Your task to perform on an android device: delete a single message in the gmail app Image 0: 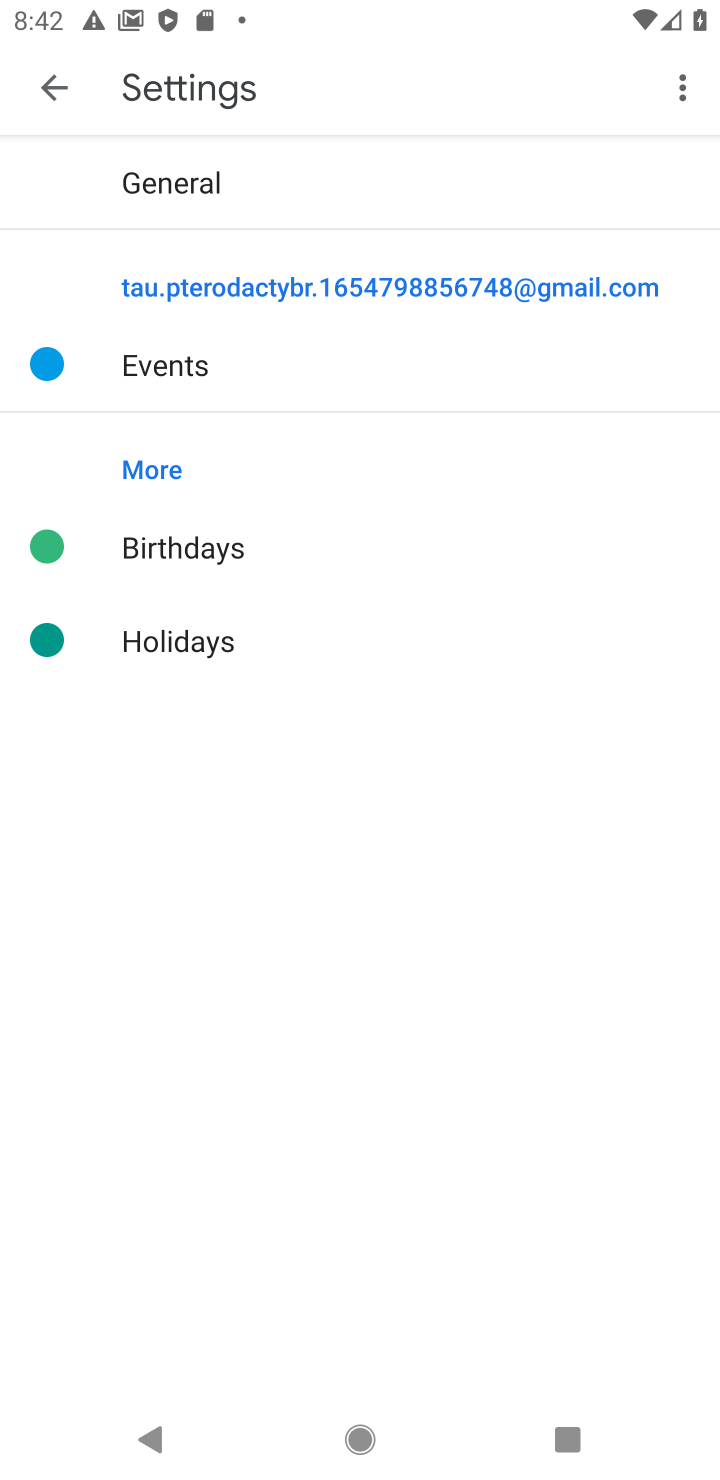
Step 0: press home button
Your task to perform on an android device: delete a single message in the gmail app Image 1: 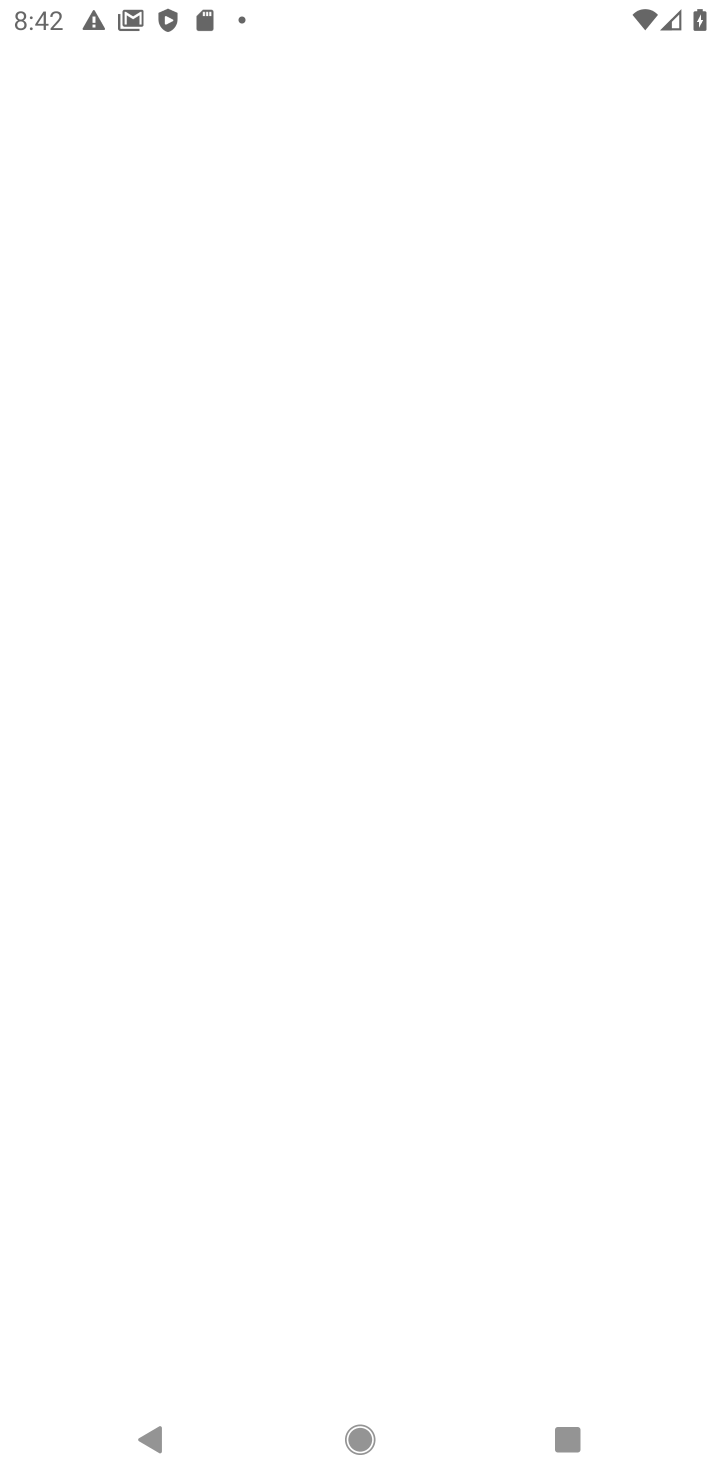
Step 1: press home button
Your task to perform on an android device: delete a single message in the gmail app Image 2: 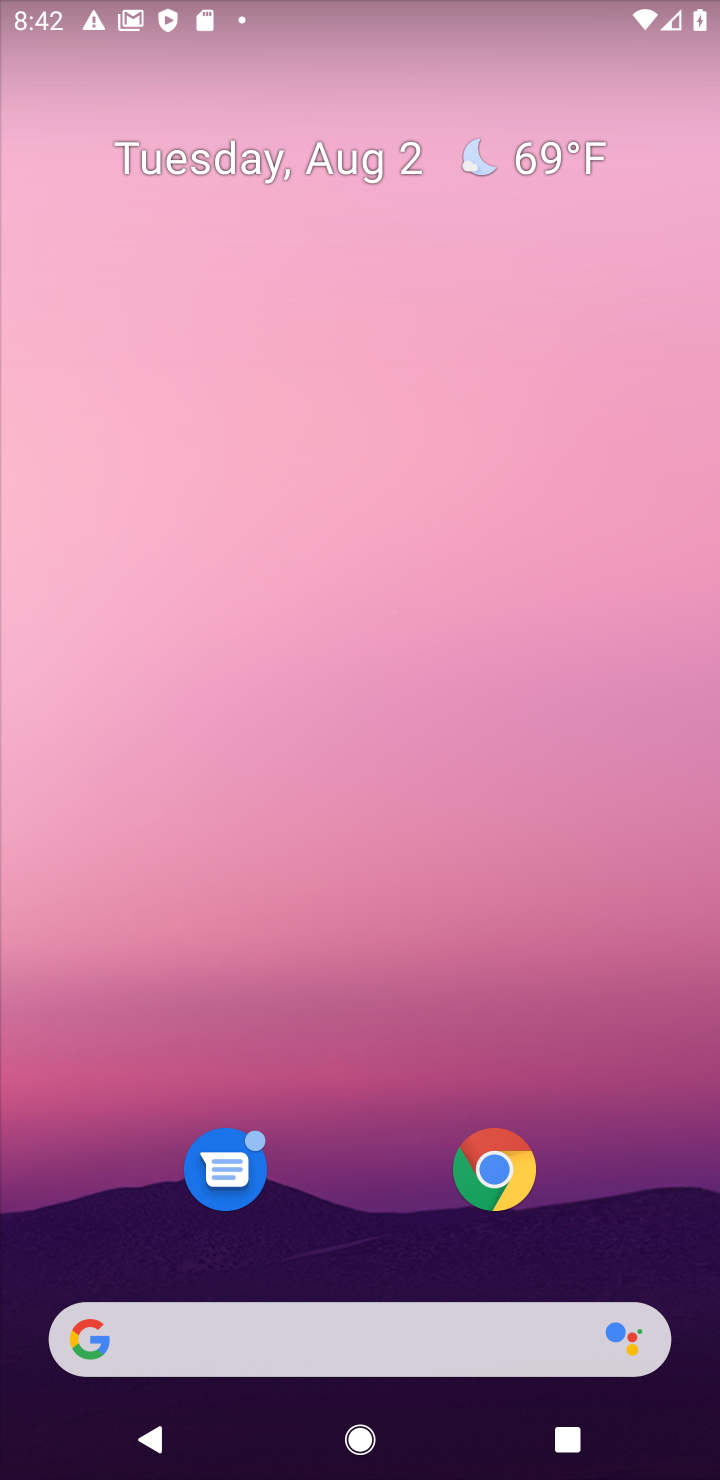
Step 2: drag from (426, 1471) to (309, 145)
Your task to perform on an android device: delete a single message in the gmail app Image 3: 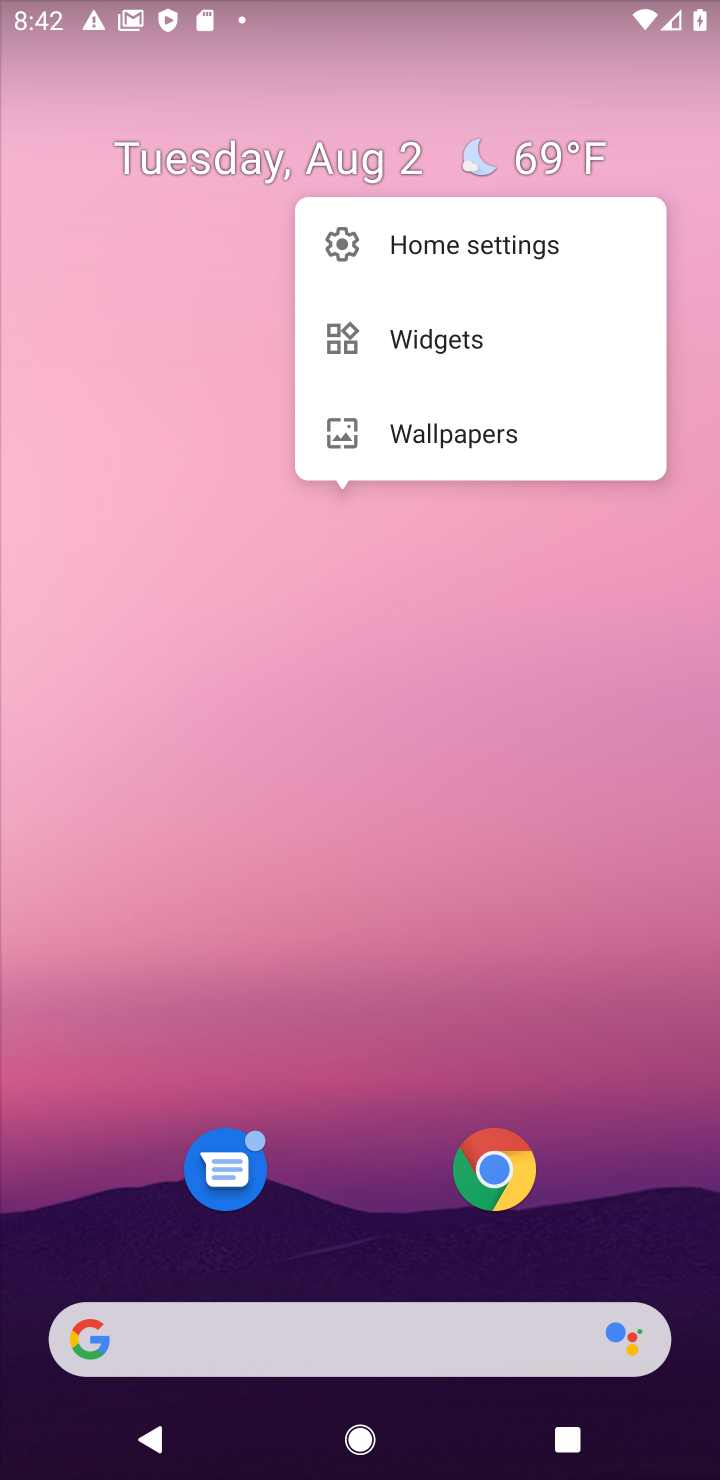
Step 3: click (428, 594)
Your task to perform on an android device: delete a single message in the gmail app Image 4: 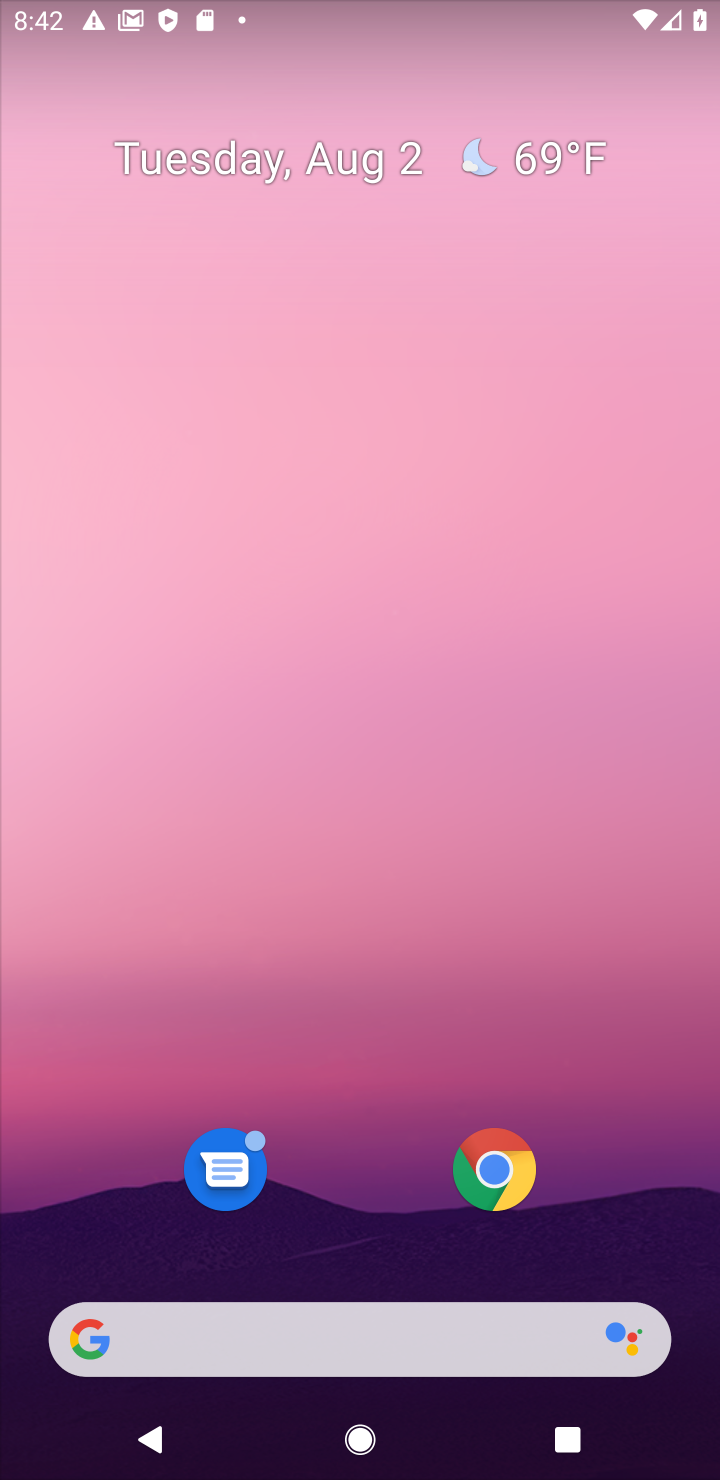
Step 4: drag from (454, 1461) to (478, 29)
Your task to perform on an android device: delete a single message in the gmail app Image 5: 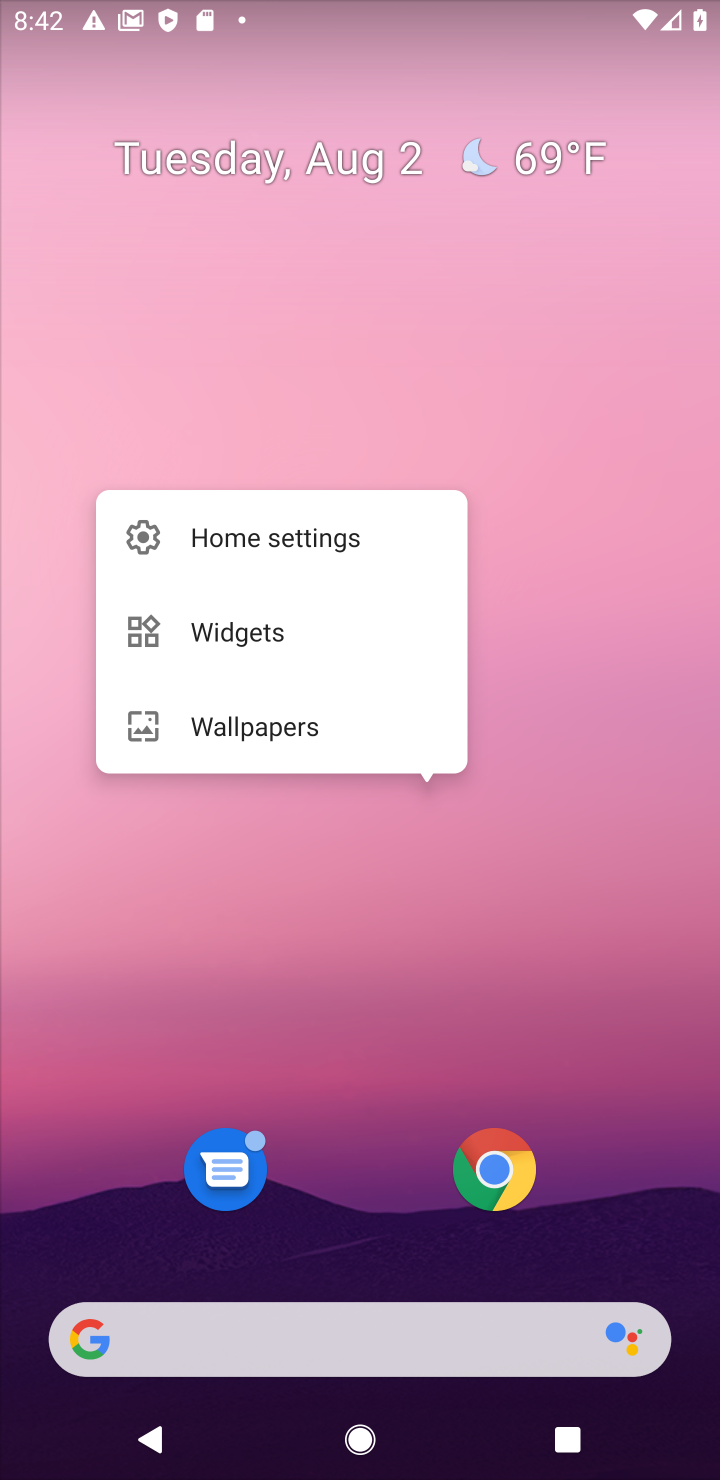
Step 5: click (534, 1113)
Your task to perform on an android device: delete a single message in the gmail app Image 6: 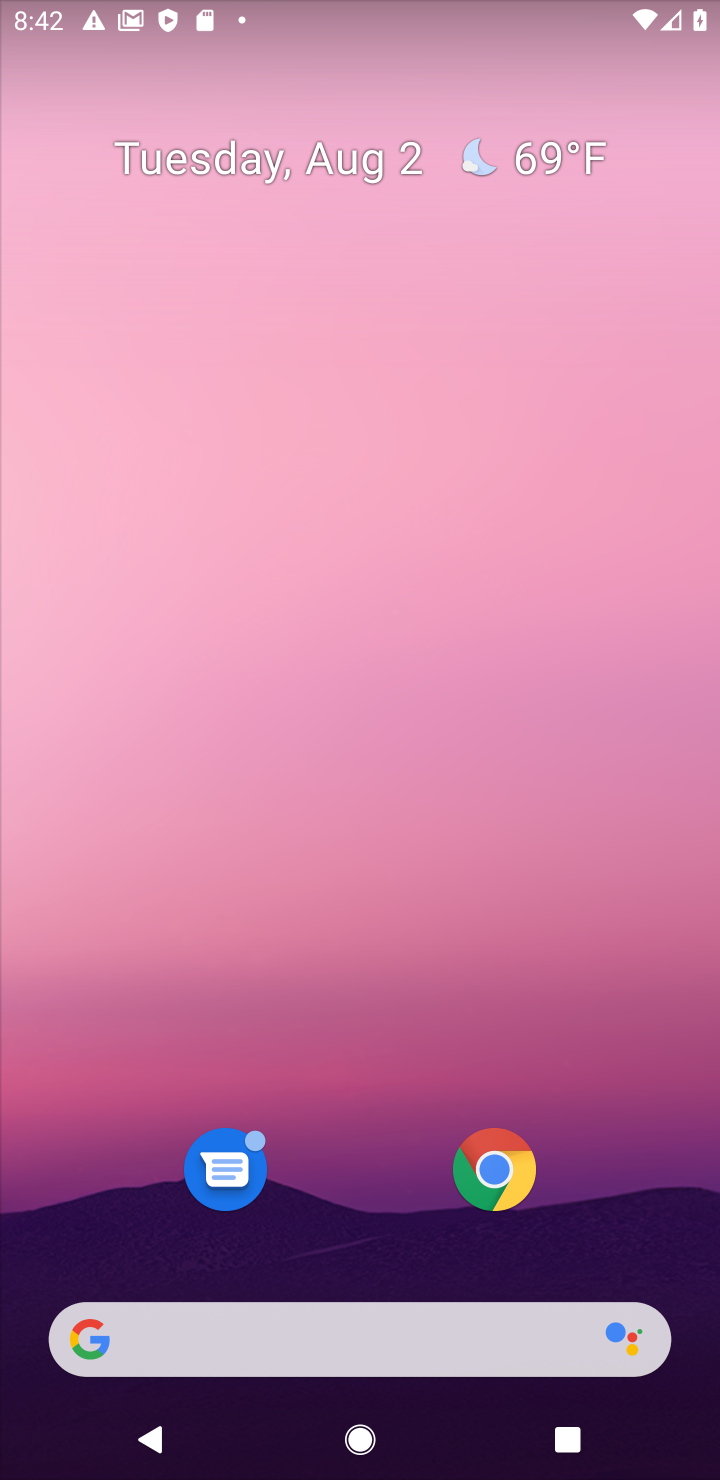
Step 6: drag from (435, 1450) to (378, 57)
Your task to perform on an android device: delete a single message in the gmail app Image 7: 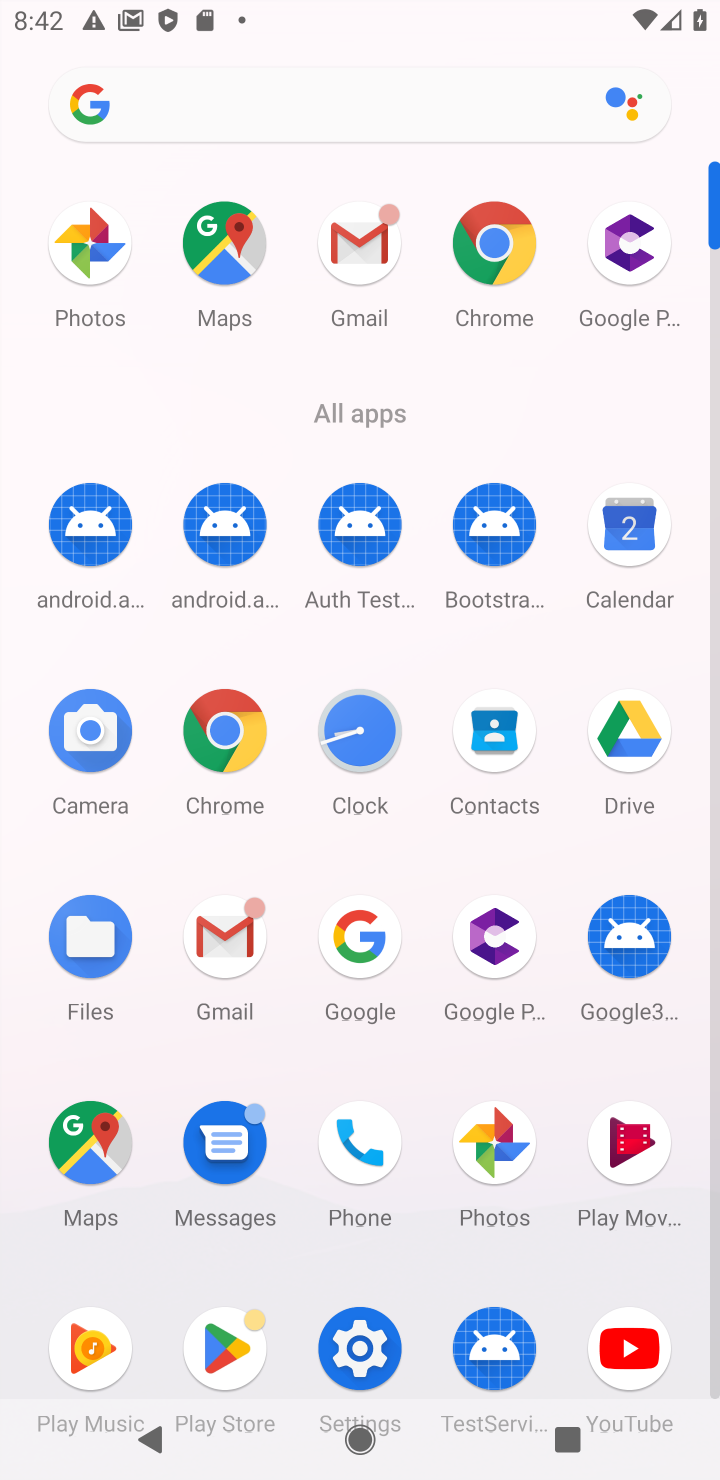
Step 7: click (224, 933)
Your task to perform on an android device: delete a single message in the gmail app Image 8: 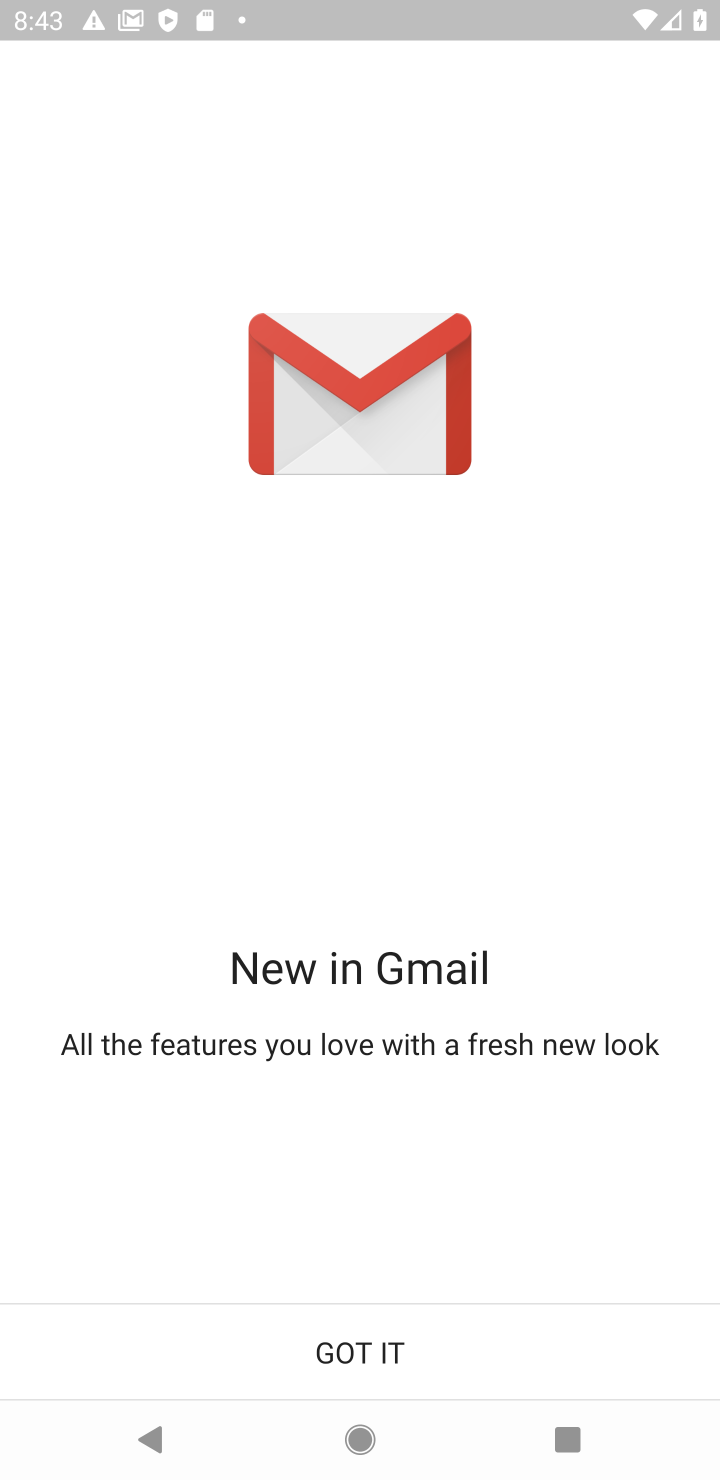
Step 8: click (356, 1346)
Your task to perform on an android device: delete a single message in the gmail app Image 9: 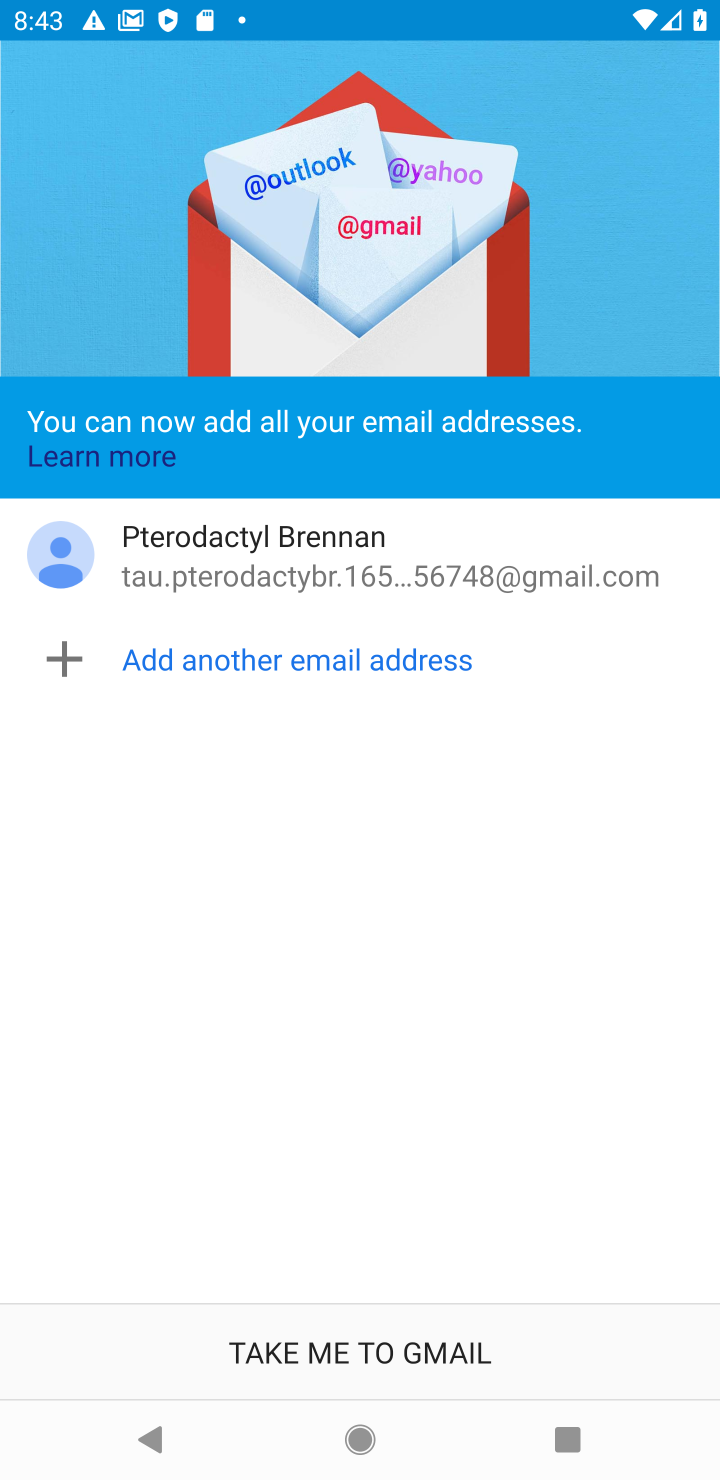
Step 9: click (391, 1348)
Your task to perform on an android device: delete a single message in the gmail app Image 10: 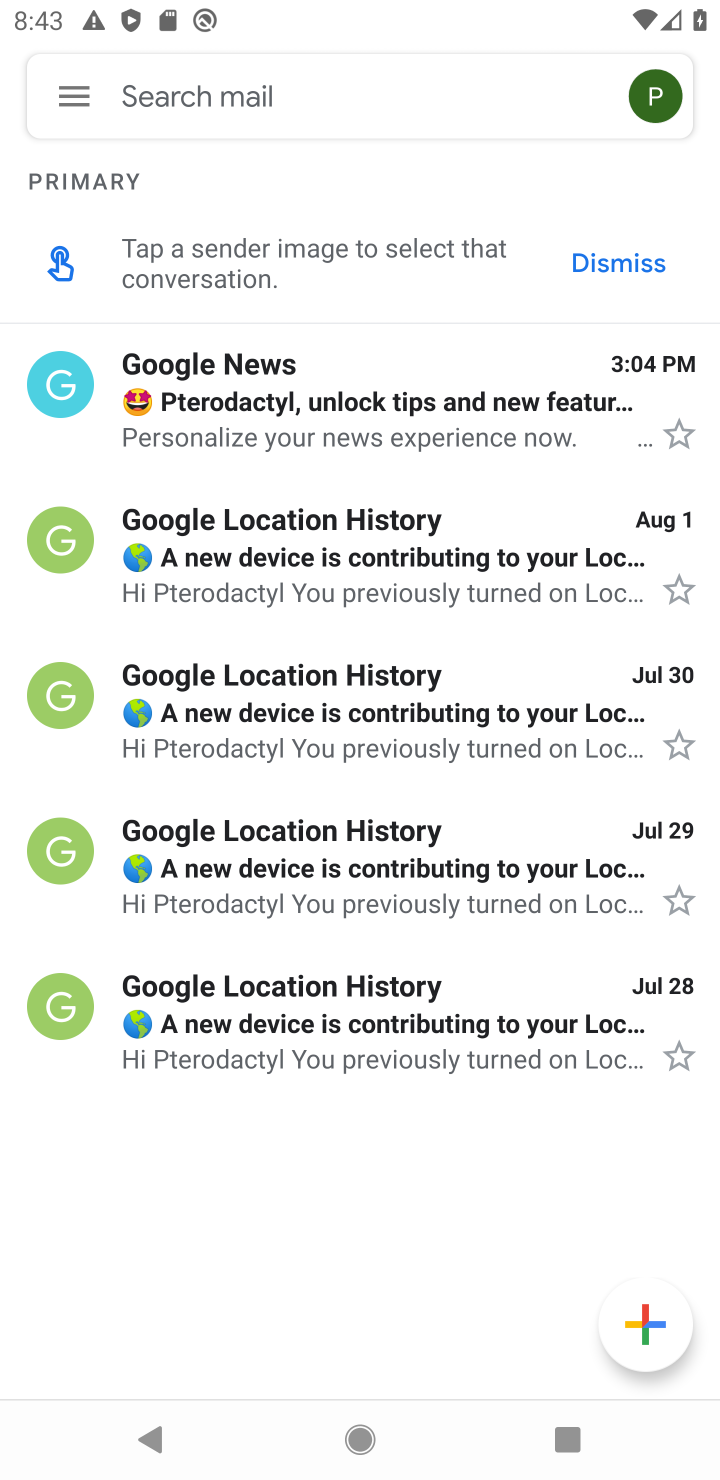
Step 10: click (353, 404)
Your task to perform on an android device: delete a single message in the gmail app Image 11: 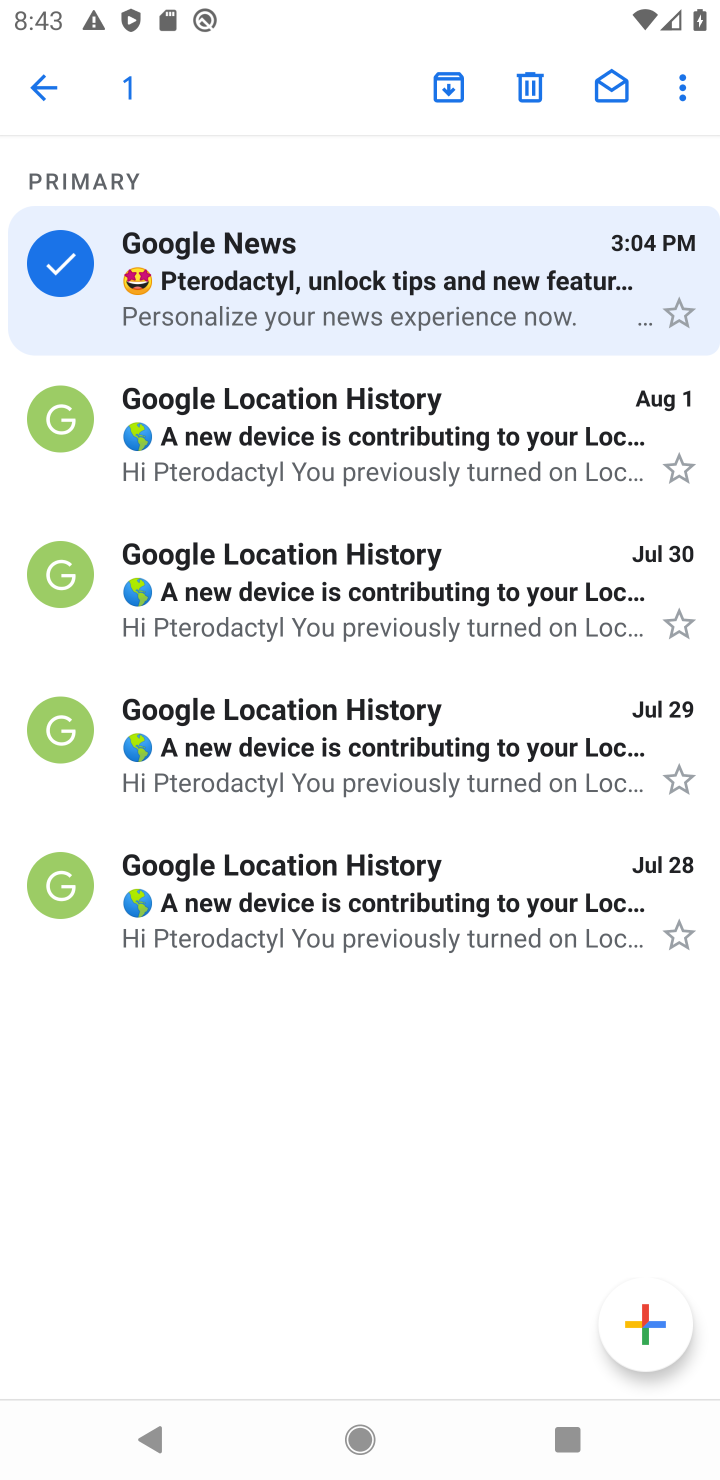
Step 11: click (519, 82)
Your task to perform on an android device: delete a single message in the gmail app Image 12: 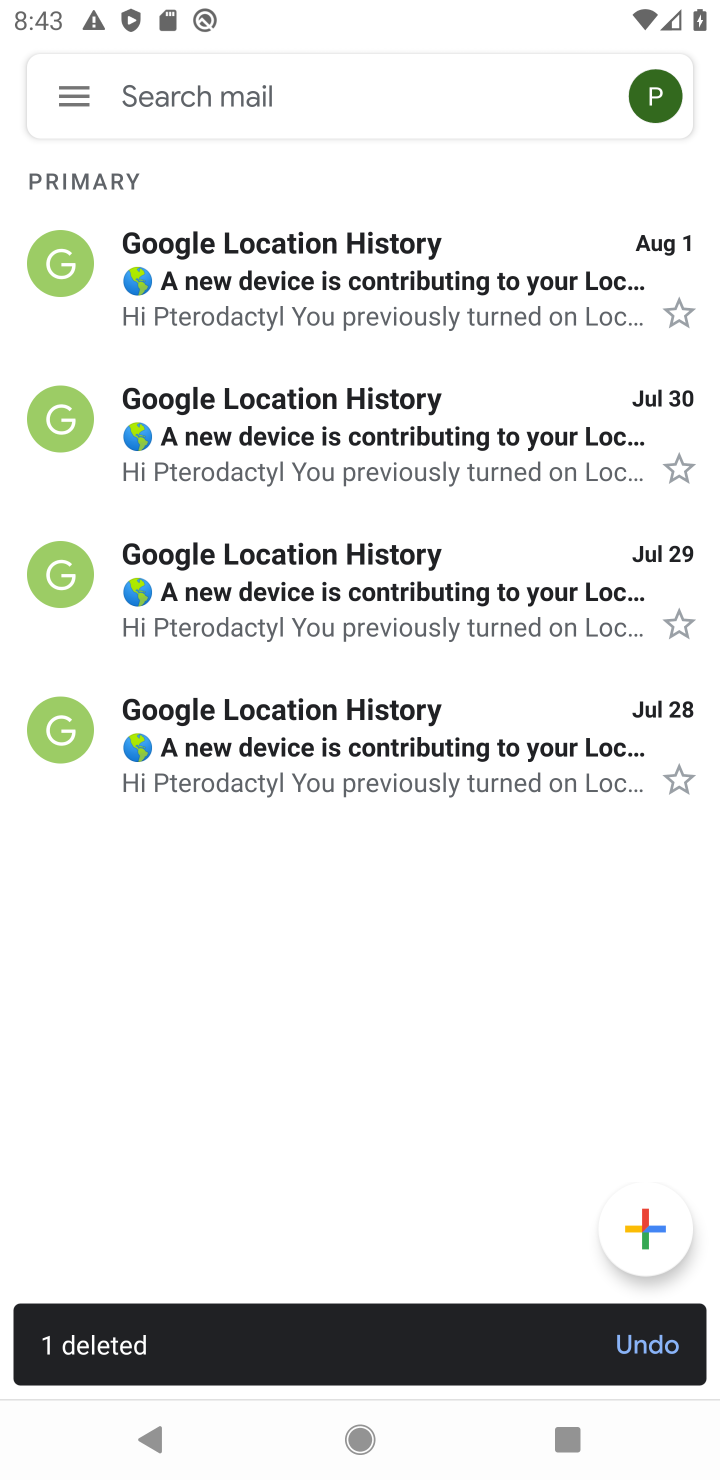
Step 12: task complete